Your task to perform on an android device: change your default location settings in chrome Image 0: 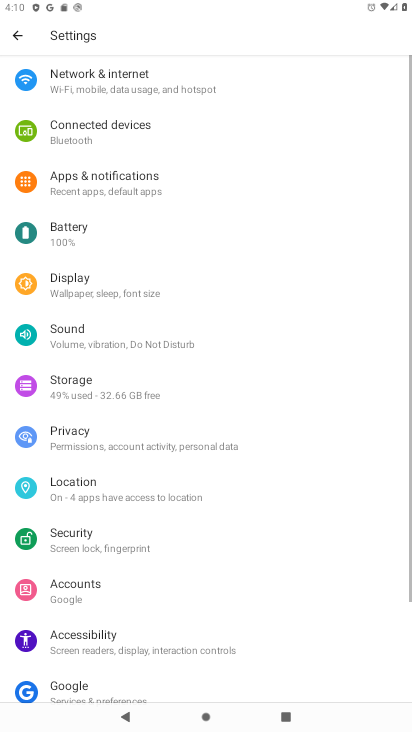
Step 0: press home button
Your task to perform on an android device: change your default location settings in chrome Image 1: 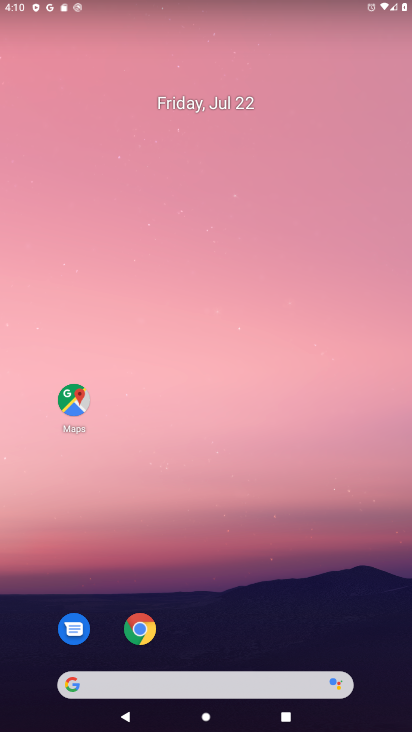
Step 1: drag from (240, 656) to (253, 203)
Your task to perform on an android device: change your default location settings in chrome Image 2: 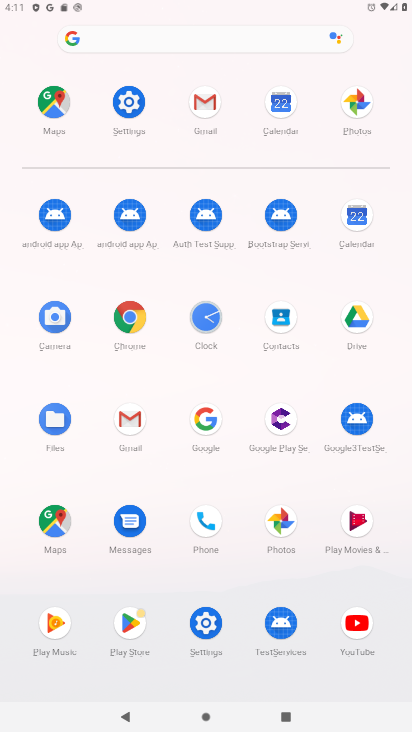
Step 2: click (124, 337)
Your task to perform on an android device: change your default location settings in chrome Image 3: 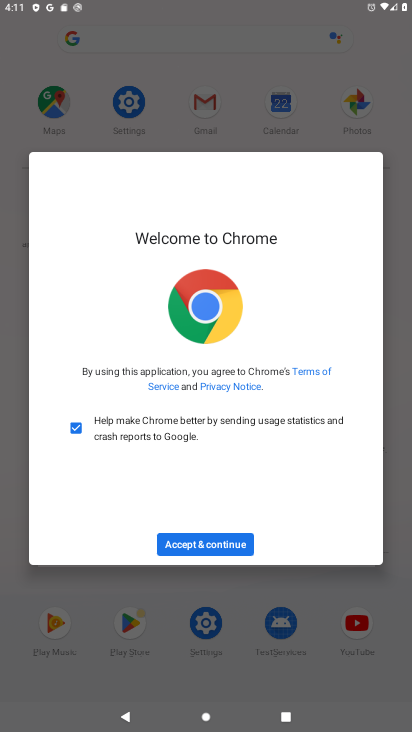
Step 3: click (203, 548)
Your task to perform on an android device: change your default location settings in chrome Image 4: 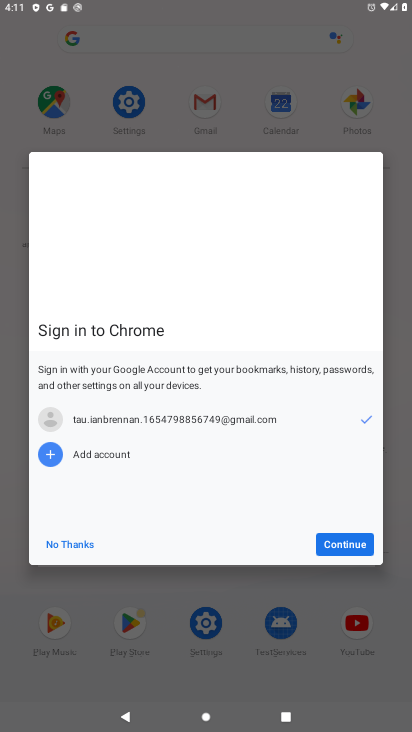
Step 4: click (335, 555)
Your task to perform on an android device: change your default location settings in chrome Image 5: 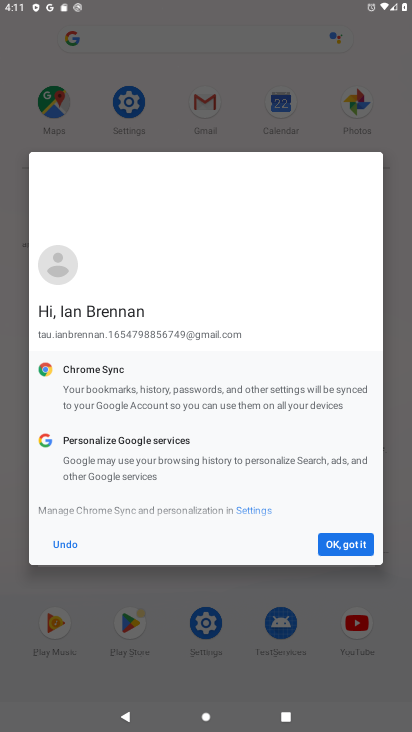
Step 5: drag from (383, 386) to (361, 488)
Your task to perform on an android device: change your default location settings in chrome Image 6: 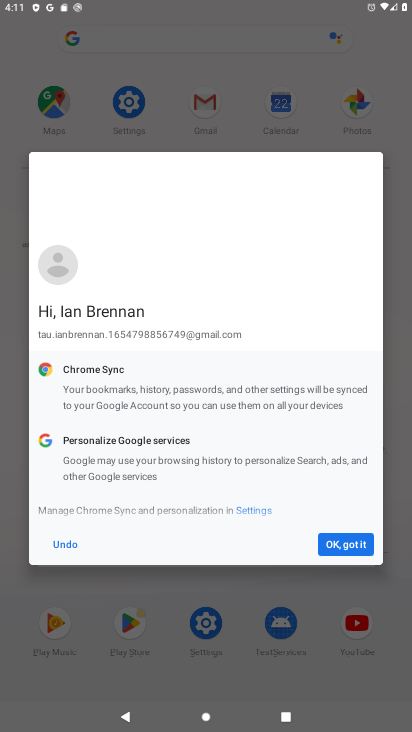
Step 6: click (333, 543)
Your task to perform on an android device: change your default location settings in chrome Image 7: 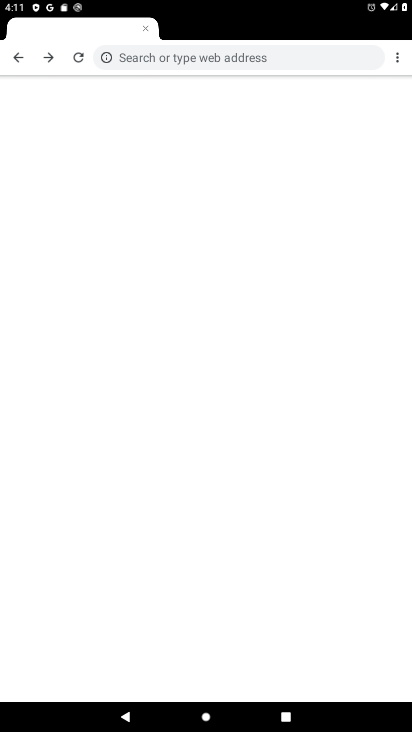
Step 7: drag from (306, 492) to (380, 290)
Your task to perform on an android device: change your default location settings in chrome Image 8: 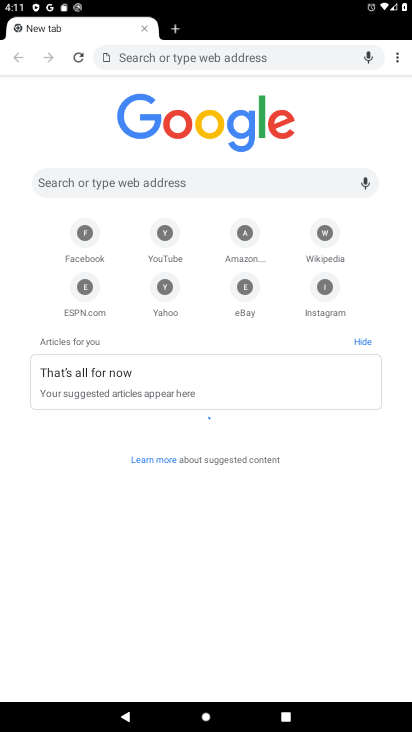
Step 8: click (403, 54)
Your task to perform on an android device: change your default location settings in chrome Image 9: 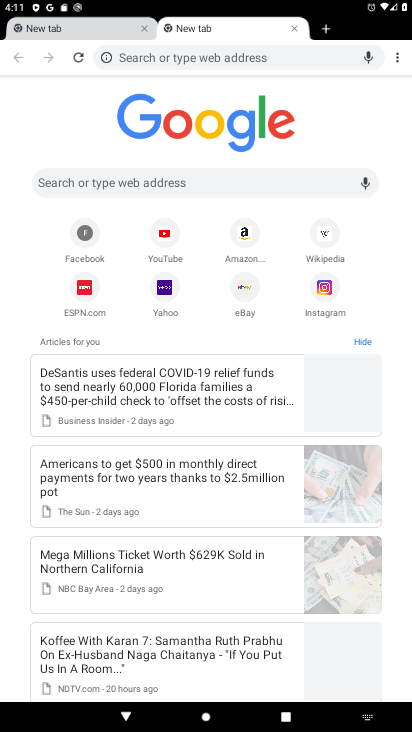
Step 9: click (394, 59)
Your task to perform on an android device: change your default location settings in chrome Image 10: 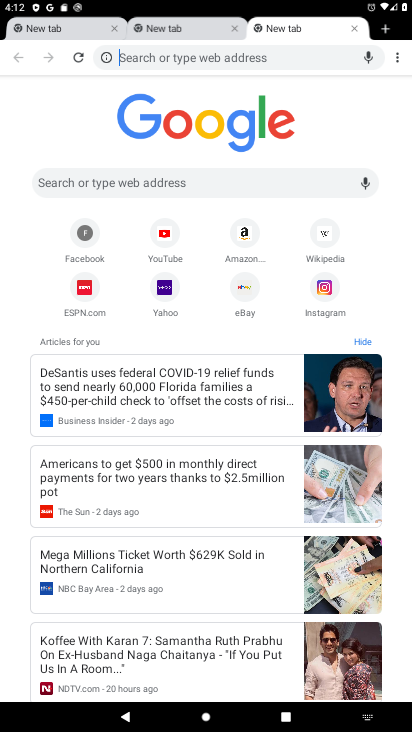
Step 10: click (398, 65)
Your task to perform on an android device: change your default location settings in chrome Image 11: 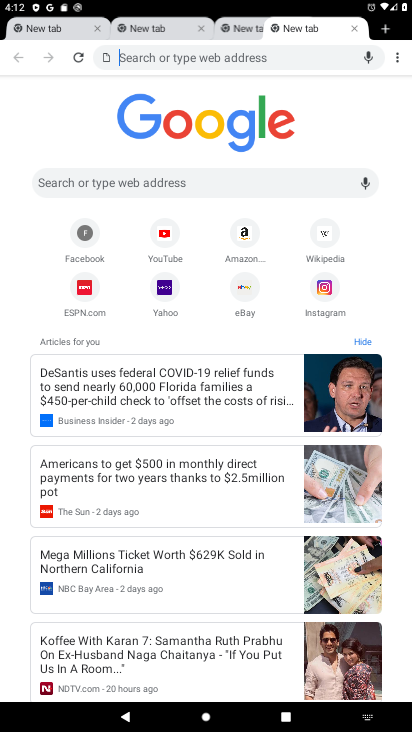
Step 11: click (398, 65)
Your task to perform on an android device: change your default location settings in chrome Image 12: 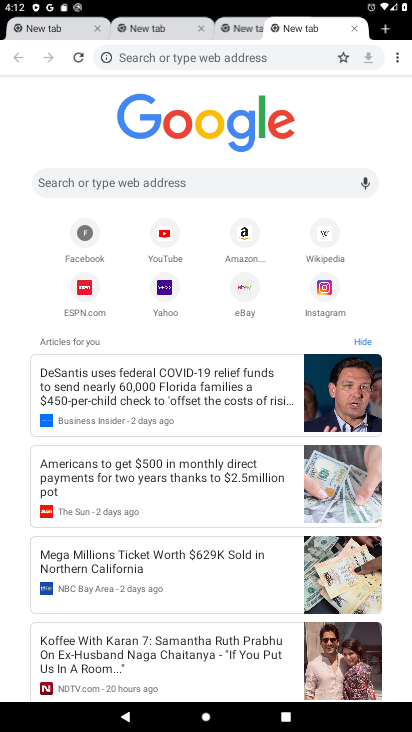
Step 12: click (405, 49)
Your task to perform on an android device: change your default location settings in chrome Image 13: 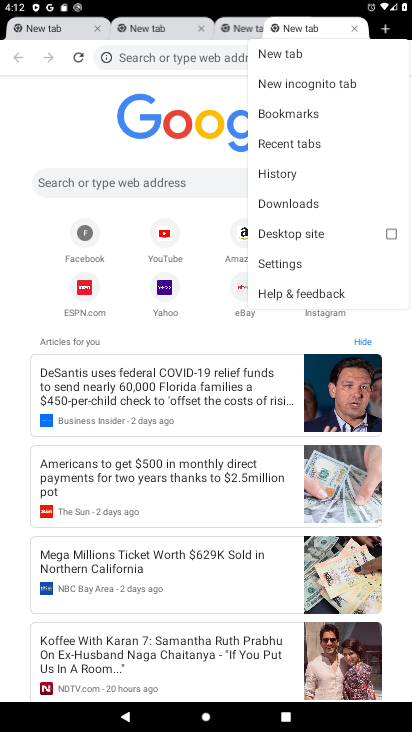
Step 13: click (274, 266)
Your task to perform on an android device: change your default location settings in chrome Image 14: 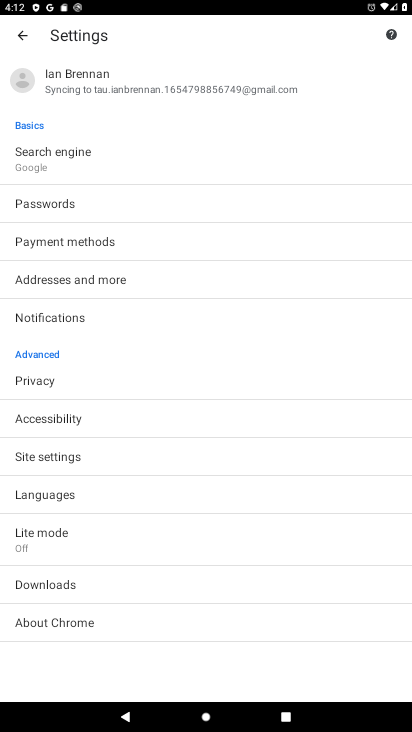
Step 14: click (74, 459)
Your task to perform on an android device: change your default location settings in chrome Image 15: 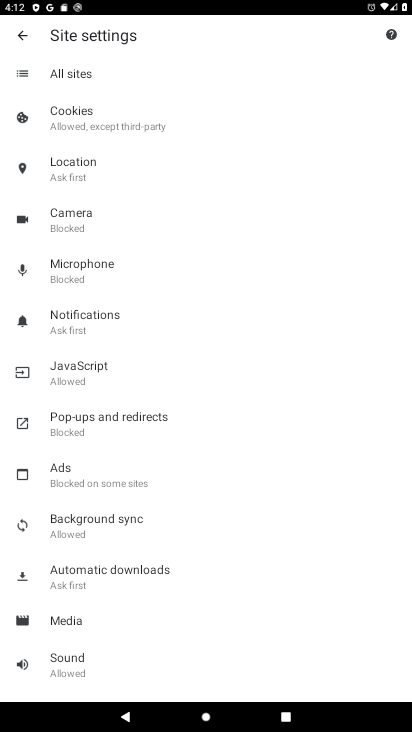
Step 15: click (96, 183)
Your task to perform on an android device: change your default location settings in chrome Image 16: 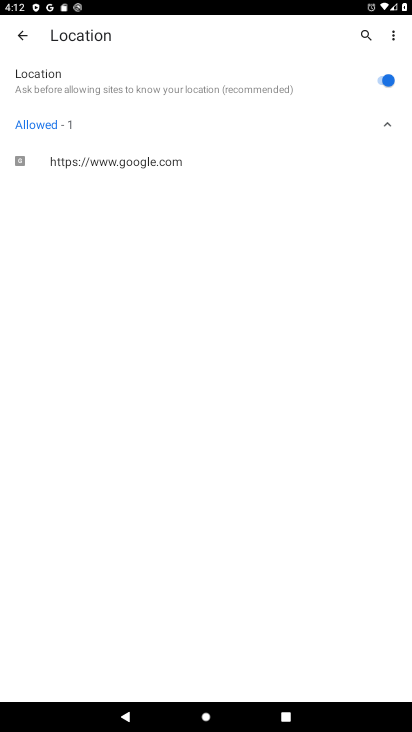
Step 16: click (351, 78)
Your task to perform on an android device: change your default location settings in chrome Image 17: 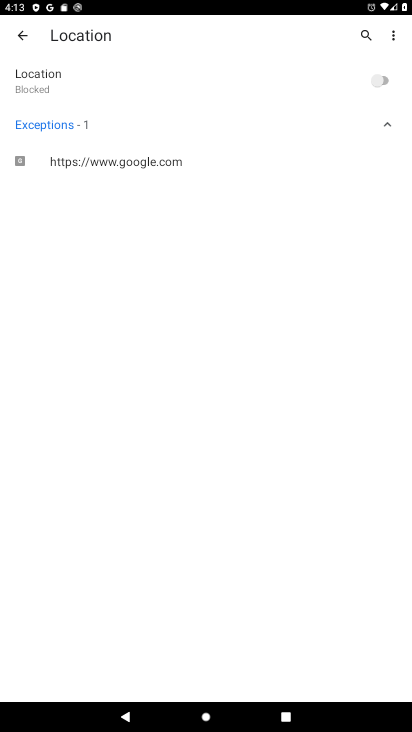
Step 17: task complete